Your task to perform on an android device: toggle javascript in the chrome app Image 0: 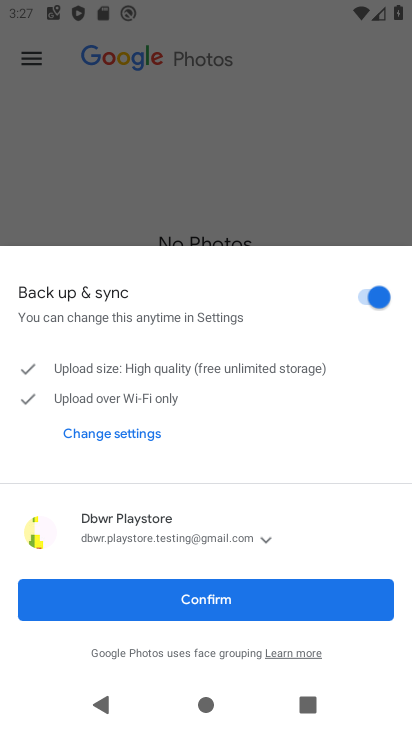
Step 0: press back button
Your task to perform on an android device: toggle javascript in the chrome app Image 1: 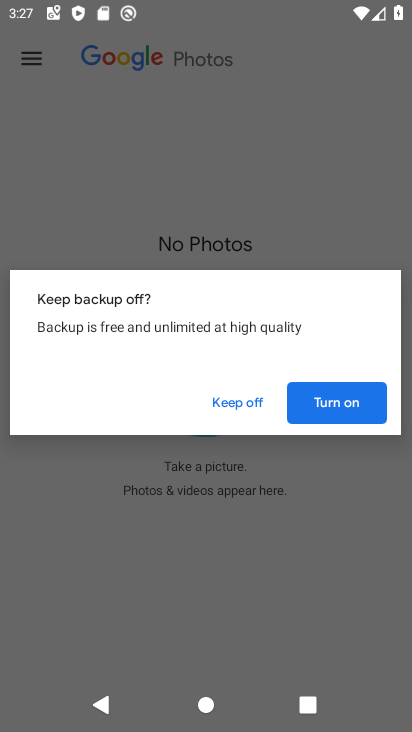
Step 1: press back button
Your task to perform on an android device: toggle javascript in the chrome app Image 2: 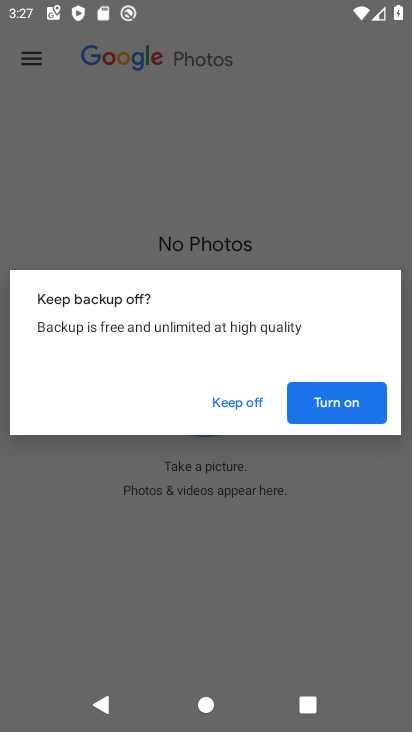
Step 2: click (244, 401)
Your task to perform on an android device: toggle javascript in the chrome app Image 3: 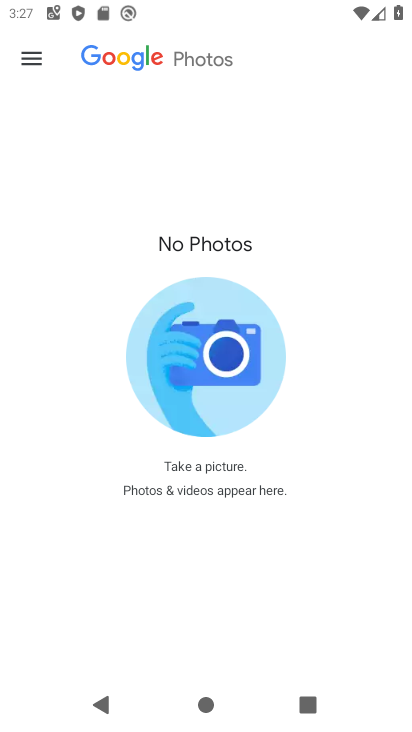
Step 3: press back button
Your task to perform on an android device: toggle javascript in the chrome app Image 4: 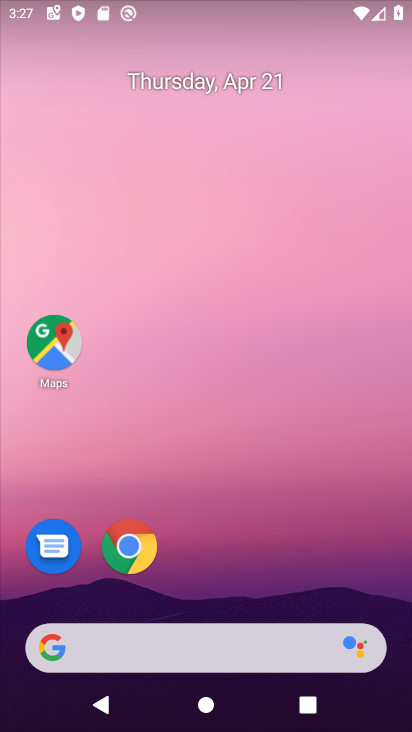
Step 4: click (137, 536)
Your task to perform on an android device: toggle javascript in the chrome app Image 5: 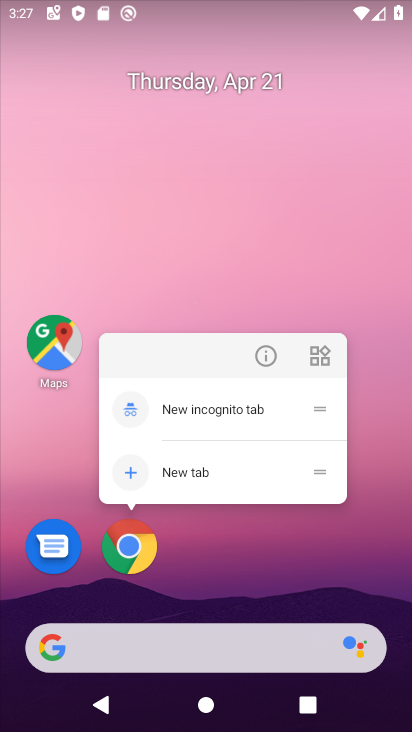
Step 5: click (134, 560)
Your task to perform on an android device: toggle javascript in the chrome app Image 6: 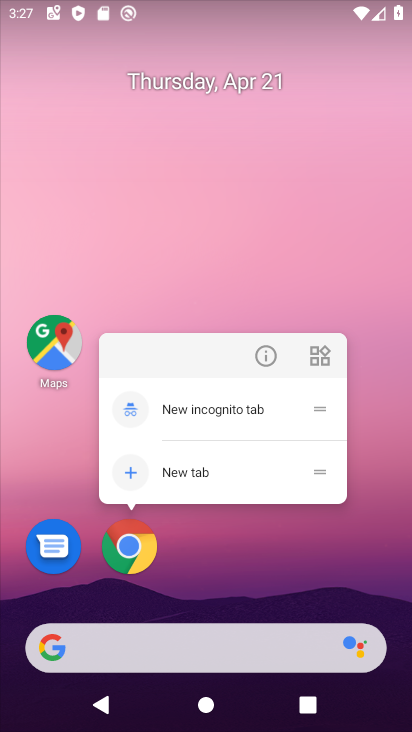
Step 6: click (144, 550)
Your task to perform on an android device: toggle javascript in the chrome app Image 7: 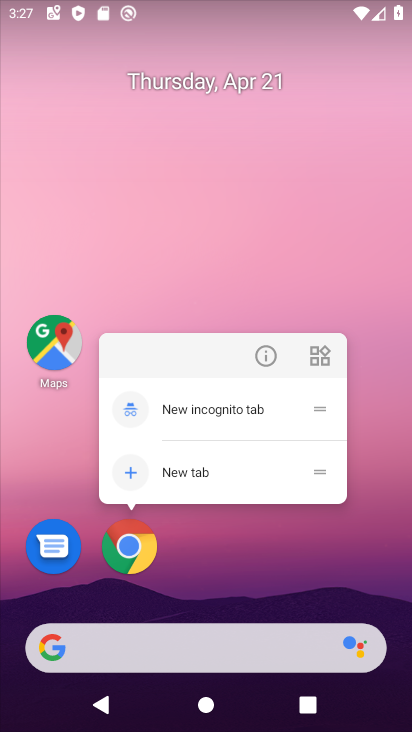
Step 7: click (136, 541)
Your task to perform on an android device: toggle javascript in the chrome app Image 8: 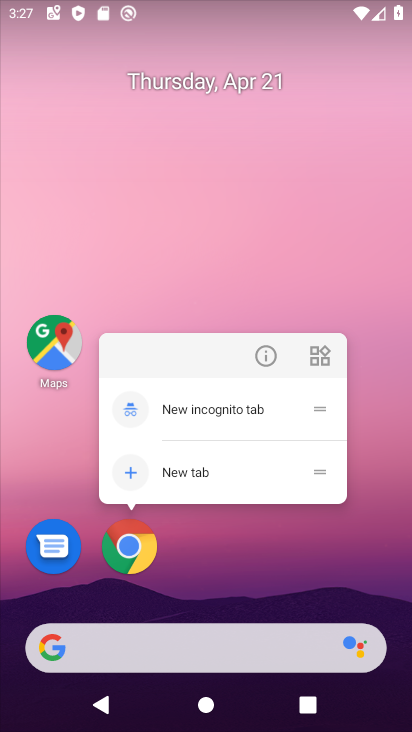
Step 8: drag from (238, 581) to (389, 6)
Your task to perform on an android device: toggle javascript in the chrome app Image 9: 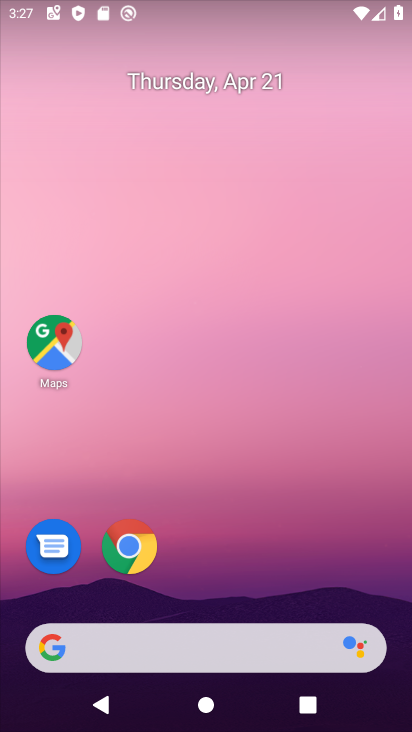
Step 9: drag from (182, 614) to (327, 49)
Your task to perform on an android device: toggle javascript in the chrome app Image 10: 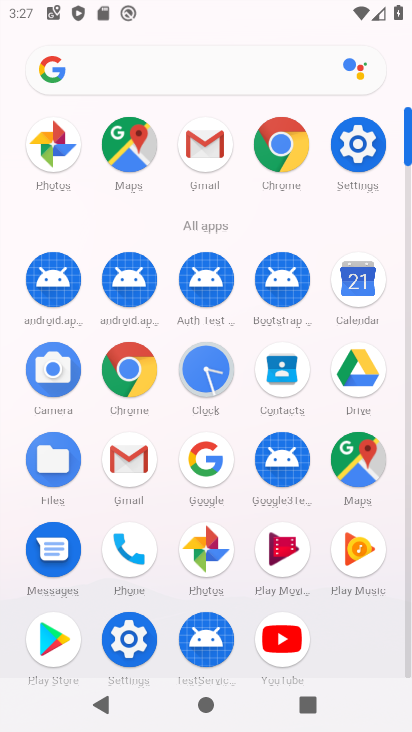
Step 10: click (287, 168)
Your task to perform on an android device: toggle javascript in the chrome app Image 11: 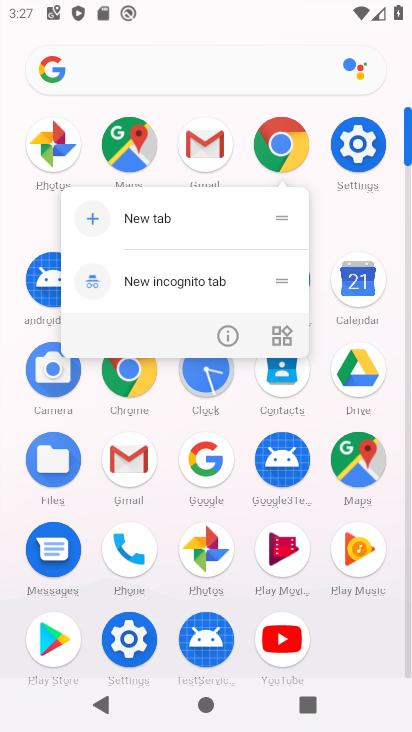
Step 11: click (282, 153)
Your task to perform on an android device: toggle javascript in the chrome app Image 12: 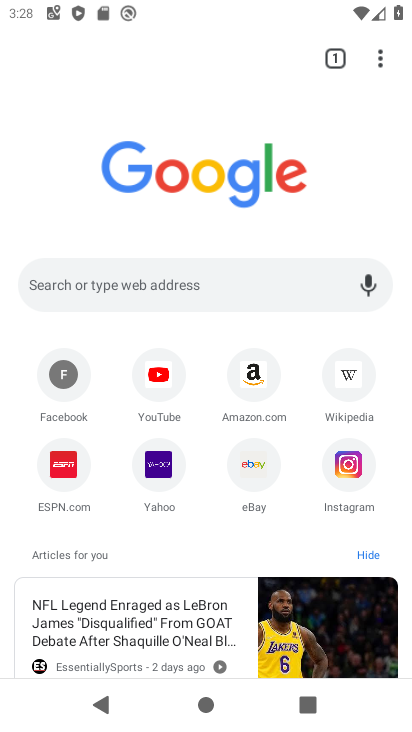
Step 12: drag from (383, 66) to (248, 465)
Your task to perform on an android device: toggle javascript in the chrome app Image 13: 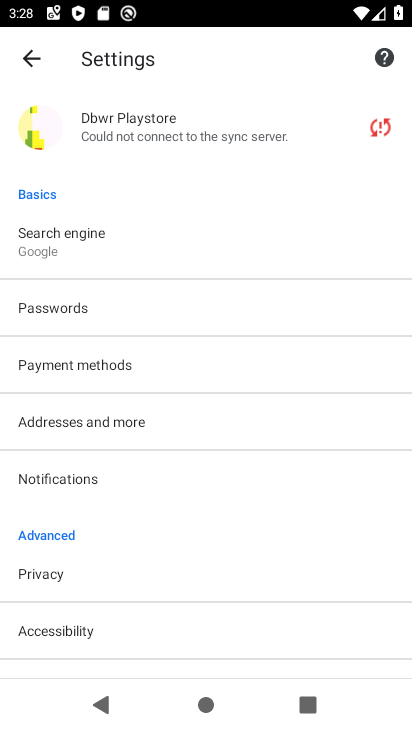
Step 13: drag from (139, 597) to (246, 188)
Your task to perform on an android device: toggle javascript in the chrome app Image 14: 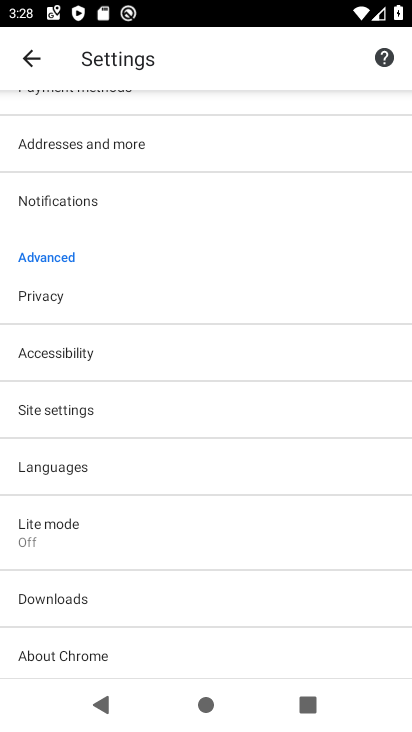
Step 14: click (134, 416)
Your task to perform on an android device: toggle javascript in the chrome app Image 15: 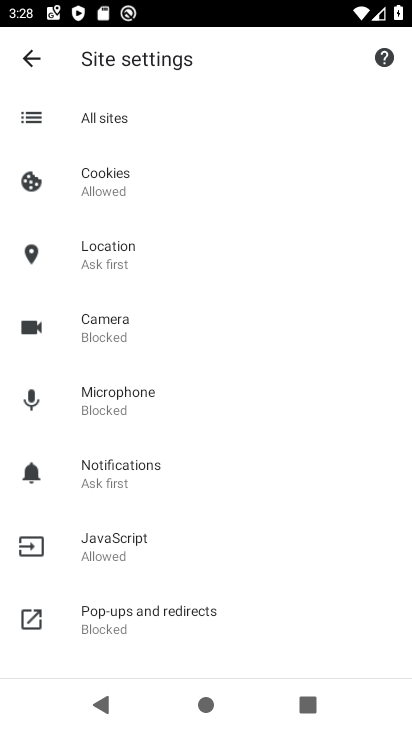
Step 15: click (160, 548)
Your task to perform on an android device: toggle javascript in the chrome app Image 16: 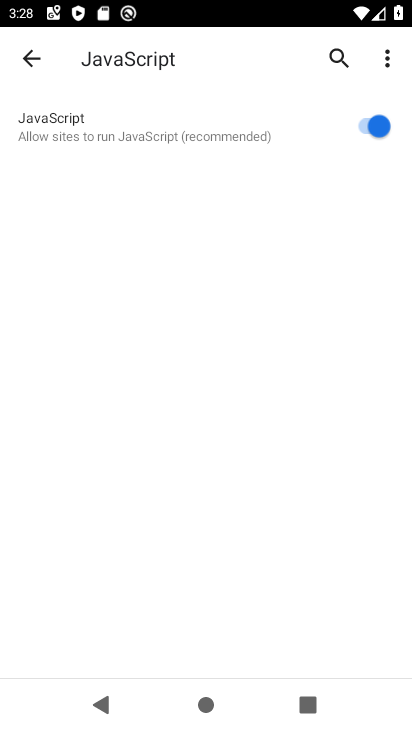
Step 16: click (359, 125)
Your task to perform on an android device: toggle javascript in the chrome app Image 17: 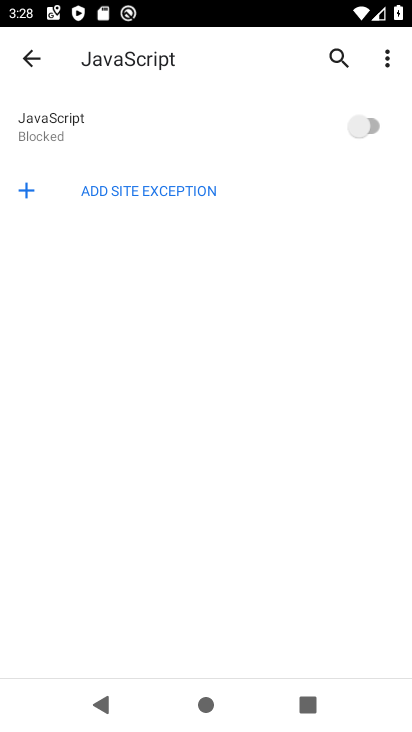
Step 17: task complete